Your task to perform on an android device: change timer sound Image 0: 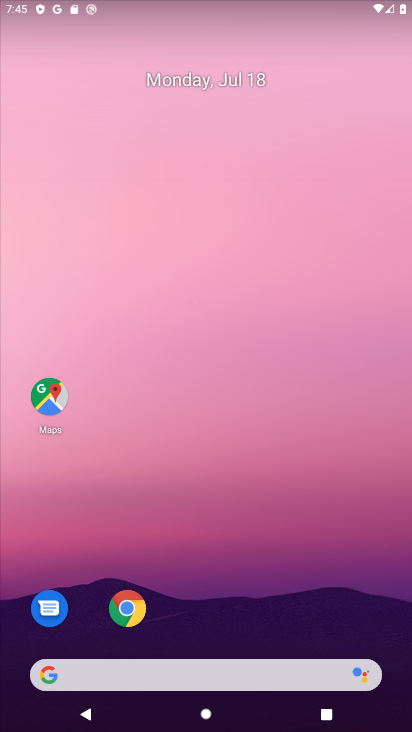
Step 0: drag from (211, 628) to (219, 115)
Your task to perform on an android device: change timer sound Image 1: 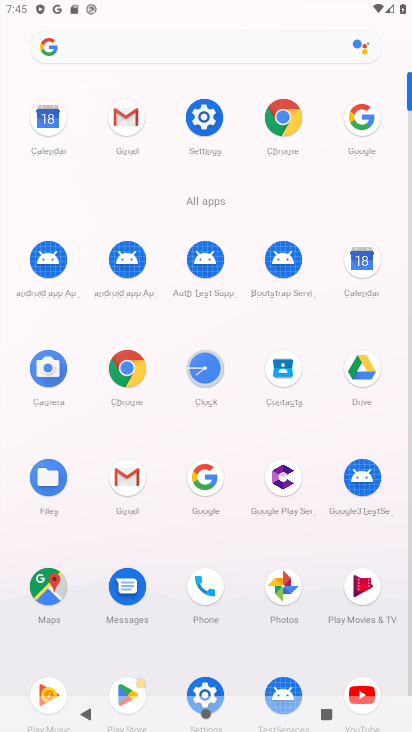
Step 1: click (205, 372)
Your task to perform on an android device: change timer sound Image 2: 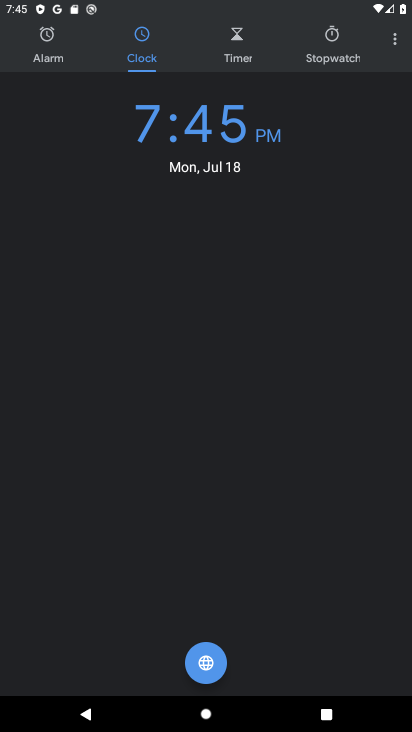
Step 2: click (392, 34)
Your task to perform on an android device: change timer sound Image 3: 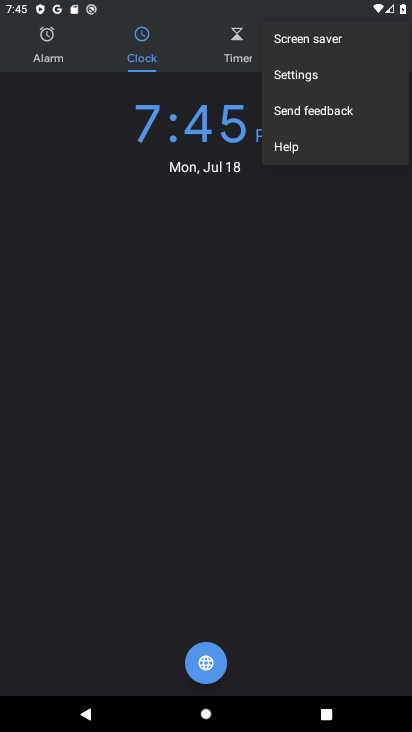
Step 3: click (305, 77)
Your task to perform on an android device: change timer sound Image 4: 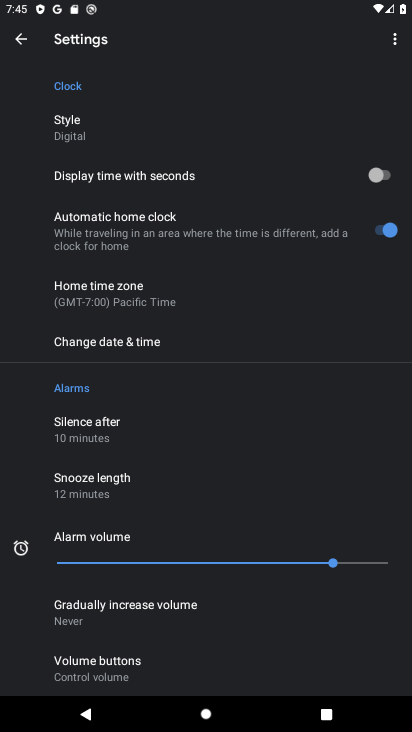
Step 4: drag from (175, 630) to (193, 179)
Your task to perform on an android device: change timer sound Image 5: 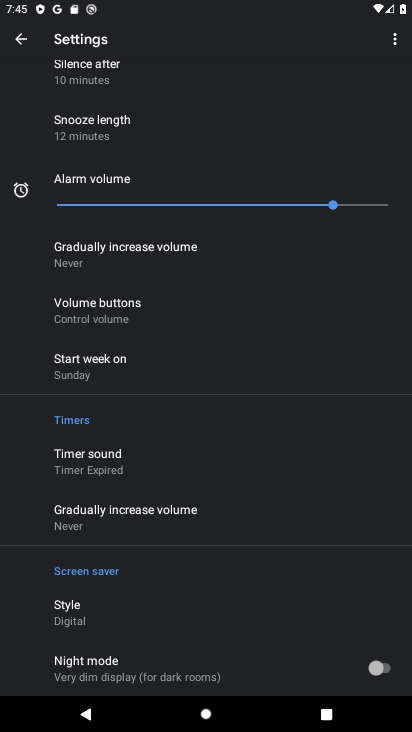
Step 5: click (95, 471)
Your task to perform on an android device: change timer sound Image 6: 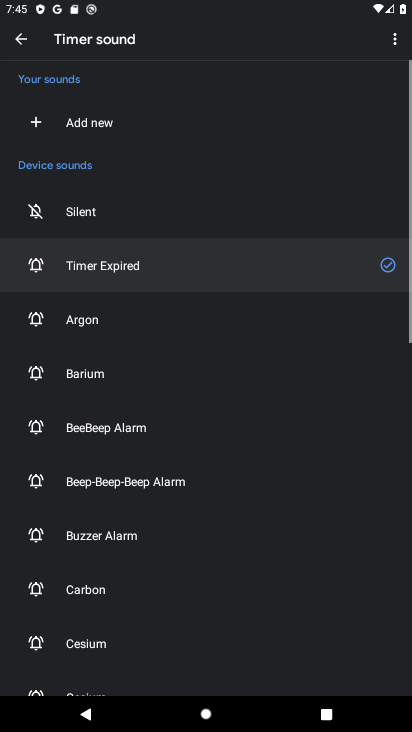
Step 6: click (59, 211)
Your task to perform on an android device: change timer sound Image 7: 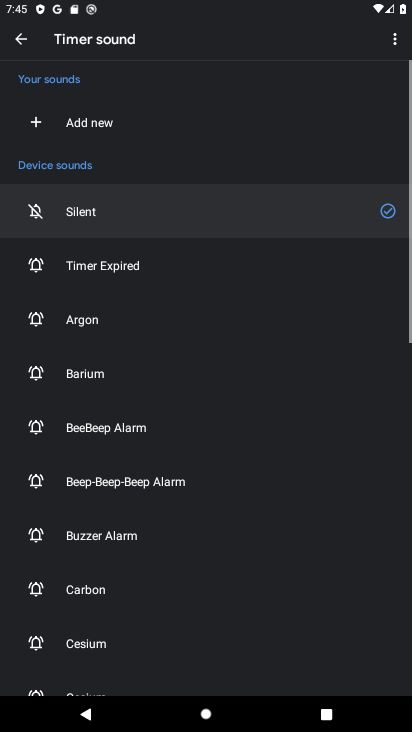
Step 7: task complete